Your task to perform on an android device: Open Google Maps Image 0: 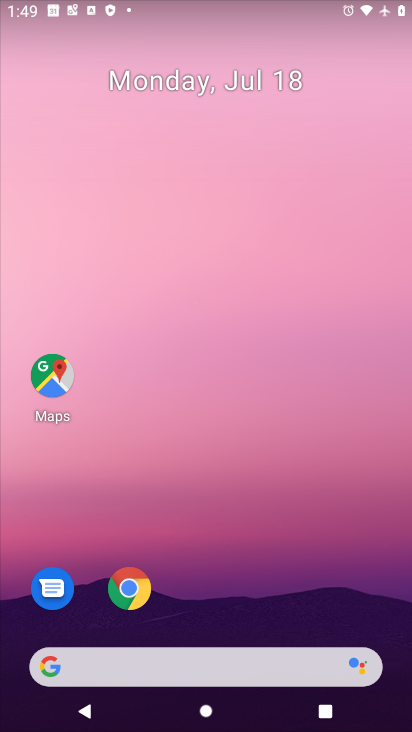
Step 0: drag from (222, 613) to (284, 372)
Your task to perform on an android device: Open Google Maps Image 1: 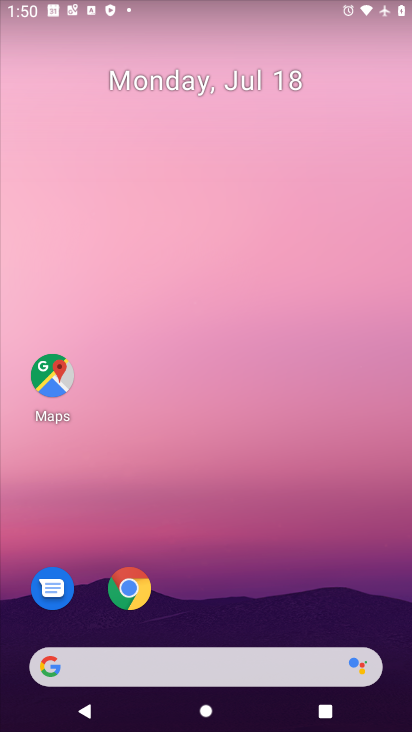
Step 1: drag from (219, 625) to (285, 342)
Your task to perform on an android device: Open Google Maps Image 2: 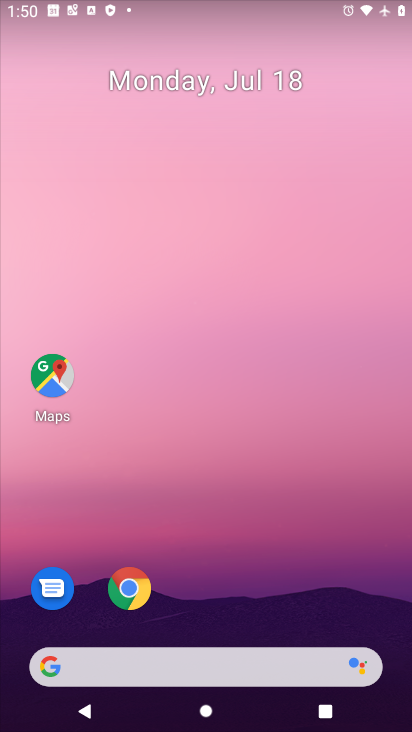
Step 2: drag from (221, 645) to (263, 224)
Your task to perform on an android device: Open Google Maps Image 3: 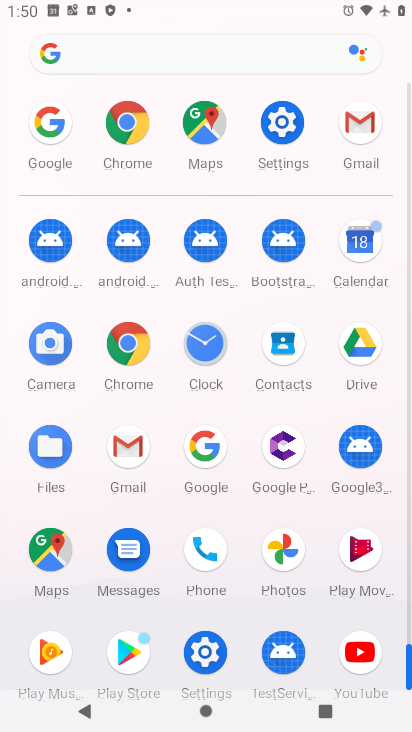
Step 3: drag from (233, 555) to (261, 378)
Your task to perform on an android device: Open Google Maps Image 4: 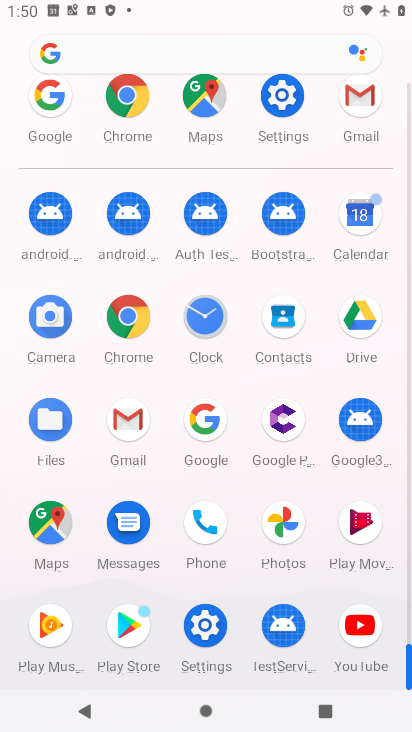
Step 4: click (50, 544)
Your task to perform on an android device: Open Google Maps Image 5: 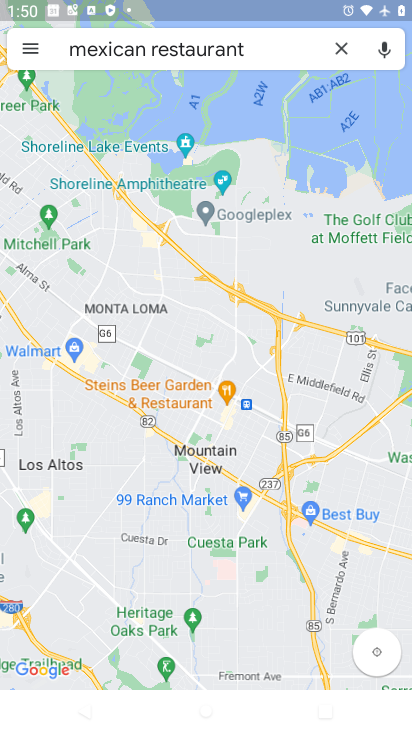
Step 5: task complete